Your task to perform on an android device: What's the weather going to be this weekend? Image 0: 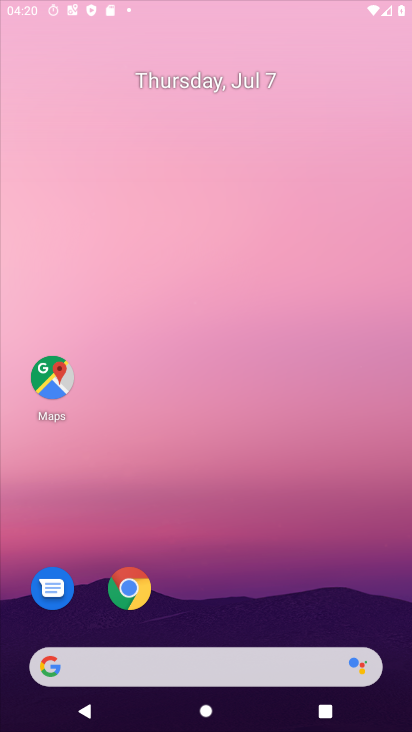
Step 0: press home button
Your task to perform on an android device: What's the weather going to be this weekend? Image 1: 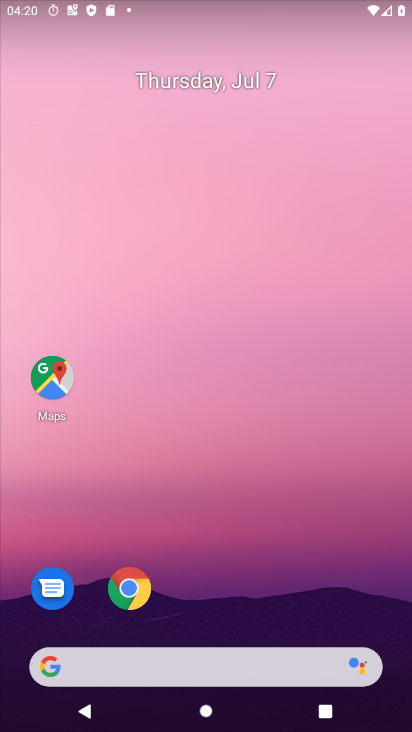
Step 1: click (56, 665)
Your task to perform on an android device: What's the weather going to be this weekend? Image 2: 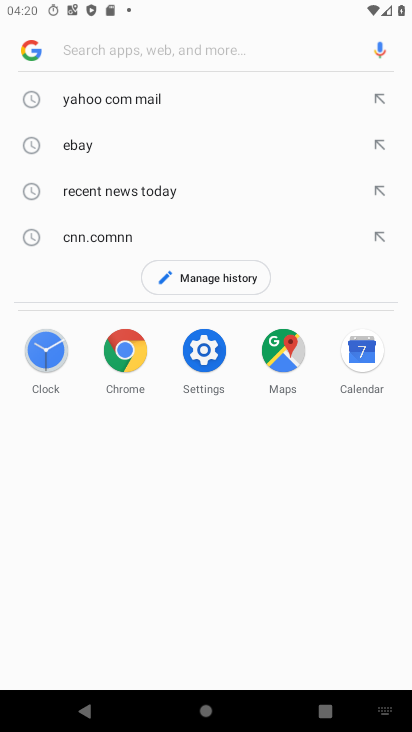
Step 2: type "weather this weekend"
Your task to perform on an android device: What's the weather going to be this weekend? Image 3: 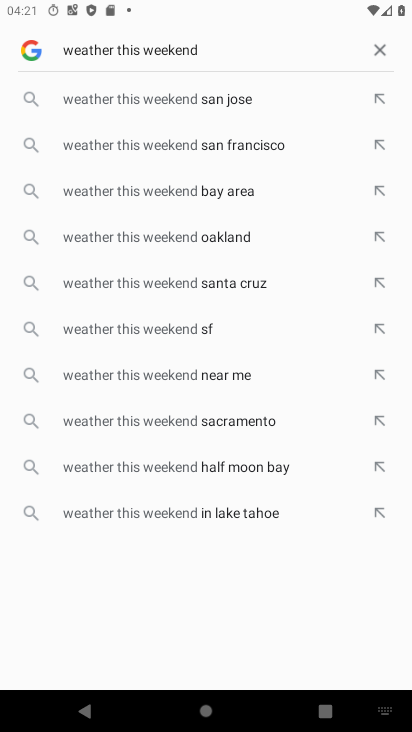
Step 3: click (377, 52)
Your task to perform on an android device: What's the weather going to be this weekend? Image 4: 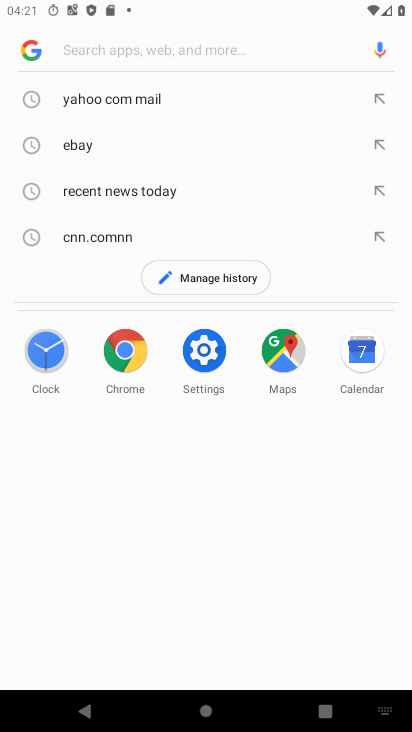
Step 4: type "weather going to be this weekend?"
Your task to perform on an android device: What's the weather going to be this weekend? Image 5: 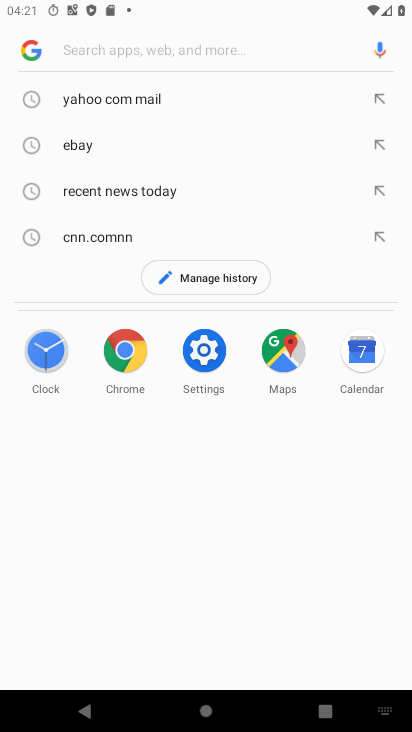
Step 5: click (177, 40)
Your task to perform on an android device: What's the weather going to be this weekend? Image 6: 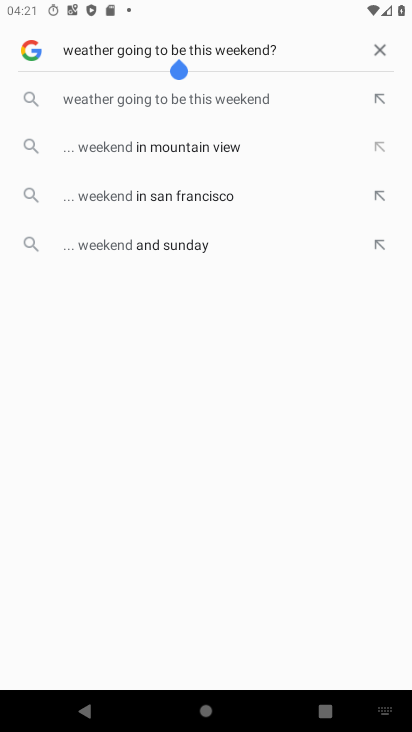
Step 6: click (163, 100)
Your task to perform on an android device: What's the weather going to be this weekend? Image 7: 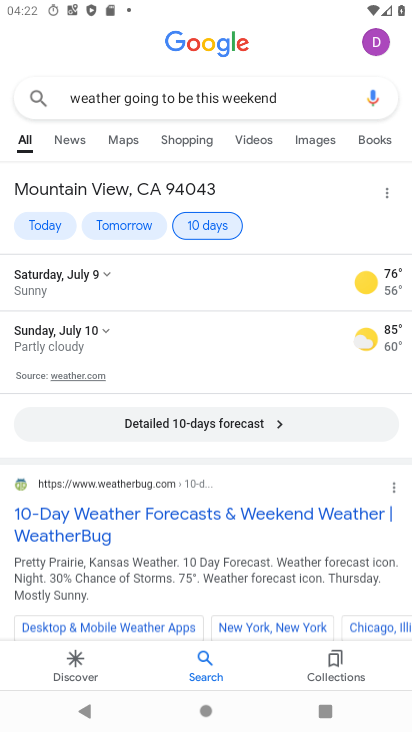
Step 7: task complete